Your task to perform on an android device: What's the weather going to be this weekend? Image 0: 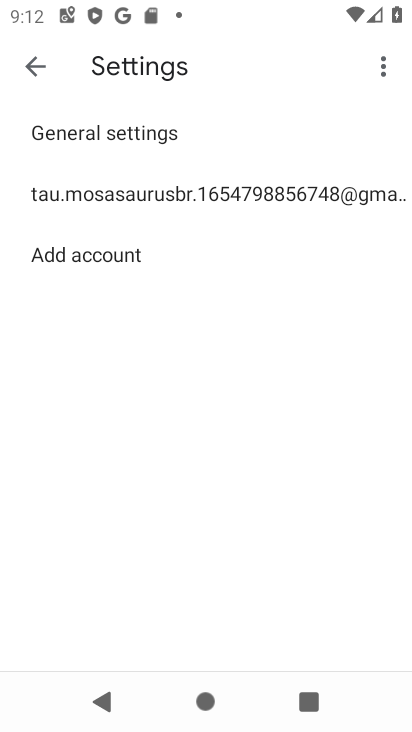
Step 0: press home button
Your task to perform on an android device: What's the weather going to be this weekend? Image 1: 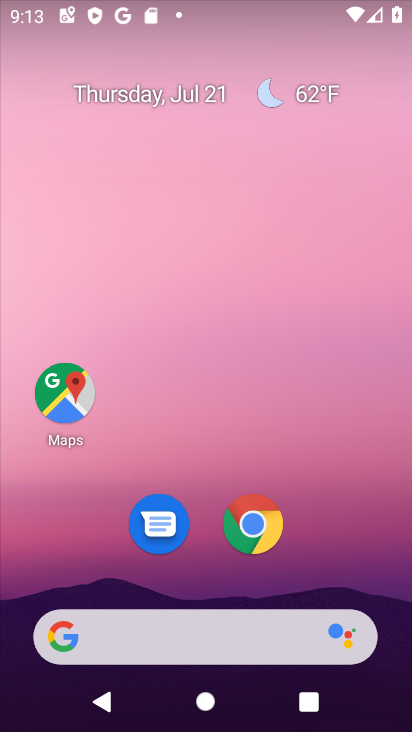
Step 1: click (163, 629)
Your task to perform on an android device: What's the weather going to be this weekend? Image 2: 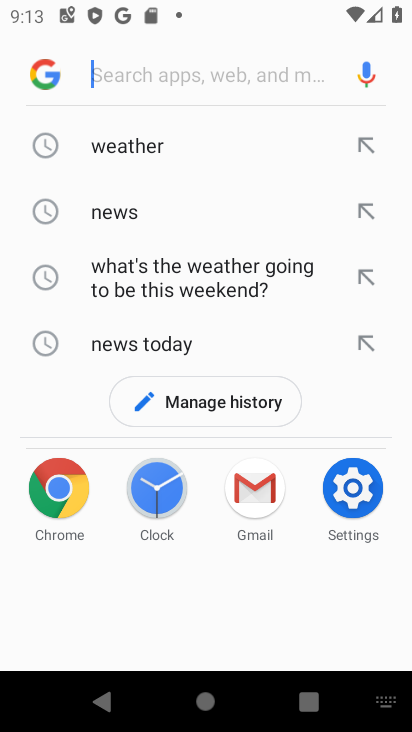
Step 2: click (135, 147)
Your task to perform on an android device: What's the weather going to be this weekend? Image 3: 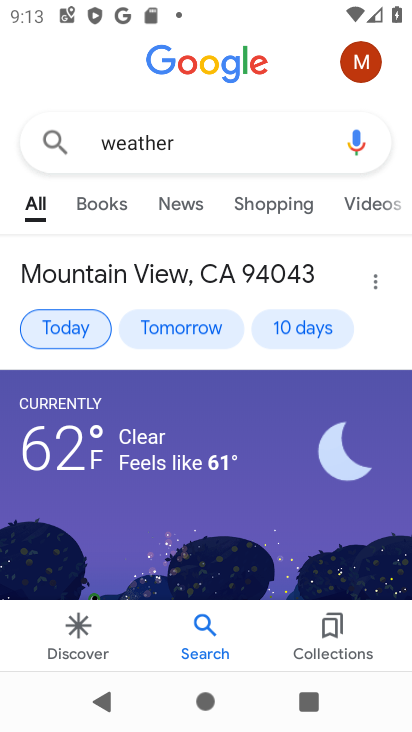
Step 3: click (289, 328)
Your task to perform on an android device: What's the weather going to be this weekend? Image 4: 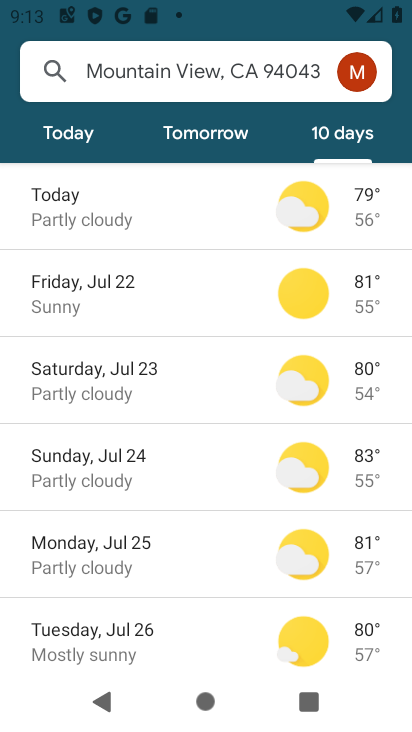
Step 4: click (101, 384)
Your task to perform on an android device: What's the weather going to be this weekend? Image 5: 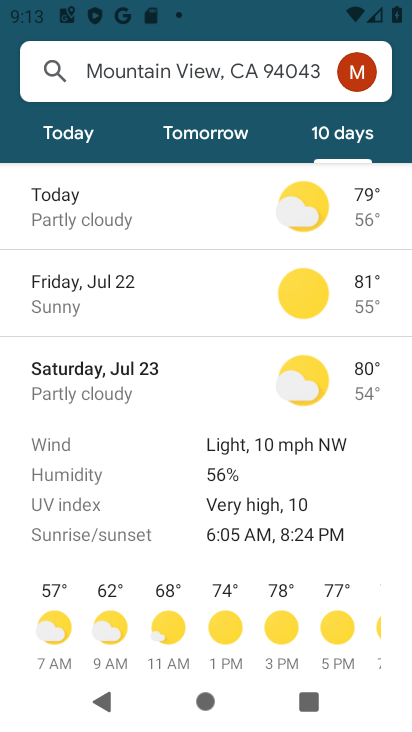
Step 5: task complete